Your task to perform on an android device: Search for bose soundlink mini on newegg.com, select the first entry, add it to the cart, then select checkout. Image 0: 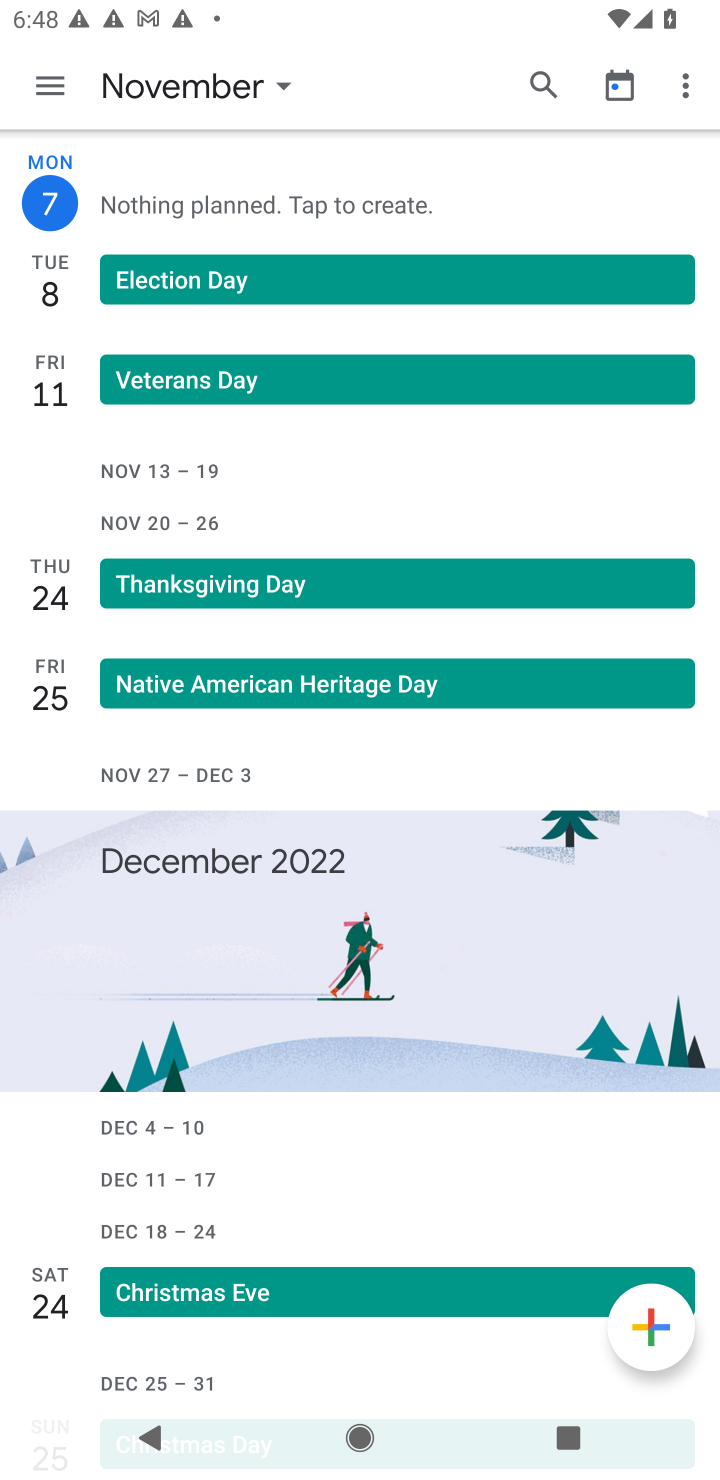
Step 0: press home button
Your task to perform on an android device: Search for bose soundlink mini on newegg.com, select the first entry, add it to the cart, then select checkout. Image 1: 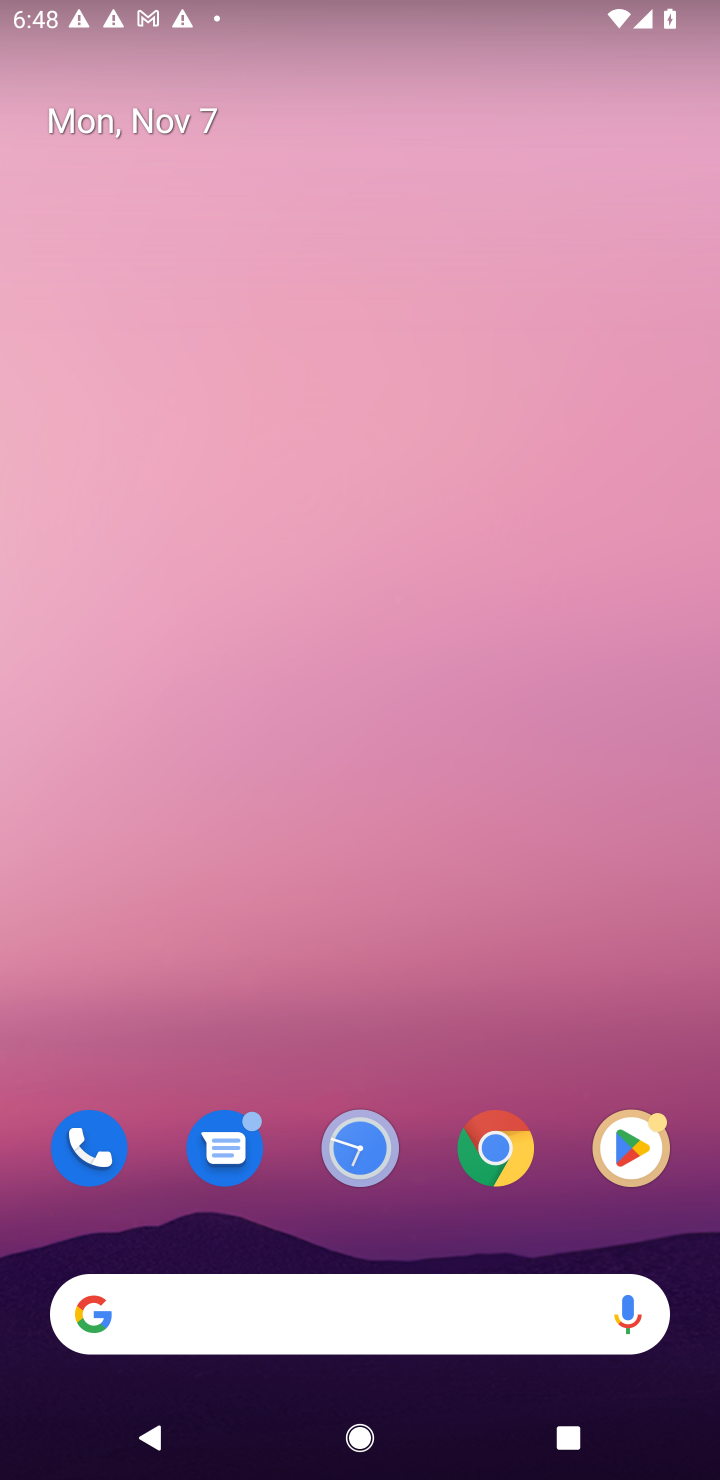
Step 1: click (476, 1165)
Your task to perform on an android device: Search for bose soundlink mini on newegg.com, select the first entry, add it to the cart, then select checkout. Image 2: 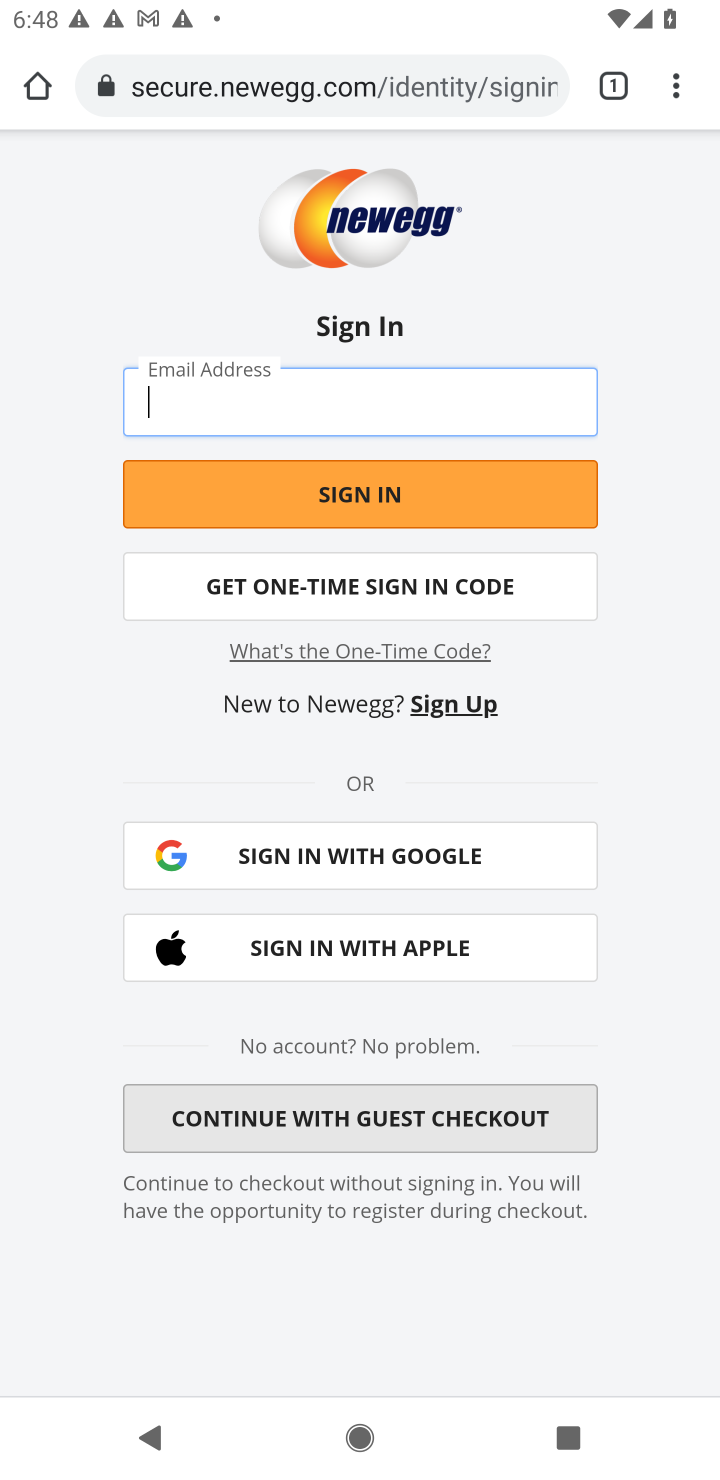
Step 2: press back button
Your task to perform on an android device: Search for bose soundlink mini on newegg.com, select the first entry, add it to the cart, then select checkout. Image 3: 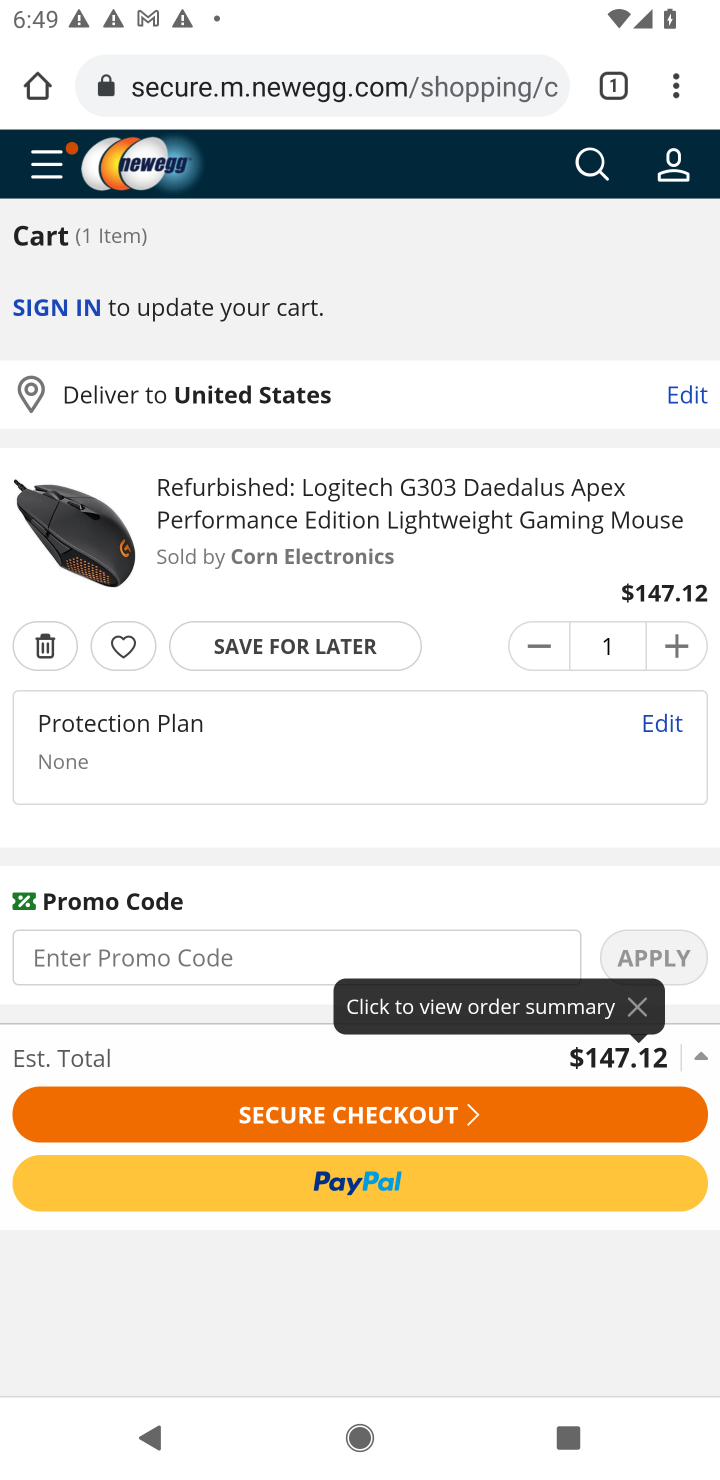
Step 3: click (585, 154)
Your task to perform on an android device: Search for bose soundlink mini on newegg.com, select the first entry, add it to the cart, then select checkout. Image 4: 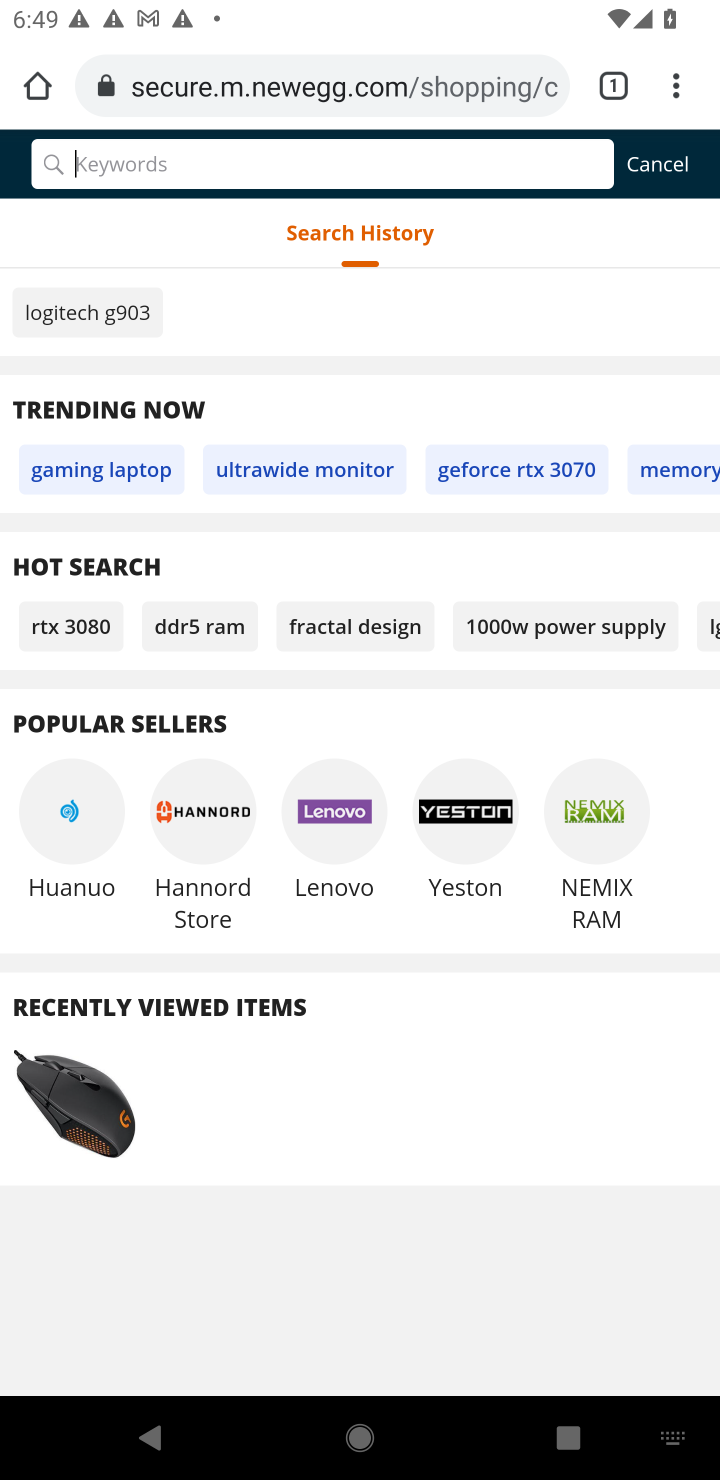
Step 4: type "bose soundlink mini "
Your task to perform on an android device: Search for bose soundlink mini on newegg.com, select the first entry, add it to the cart, then select checkout. Image 5: 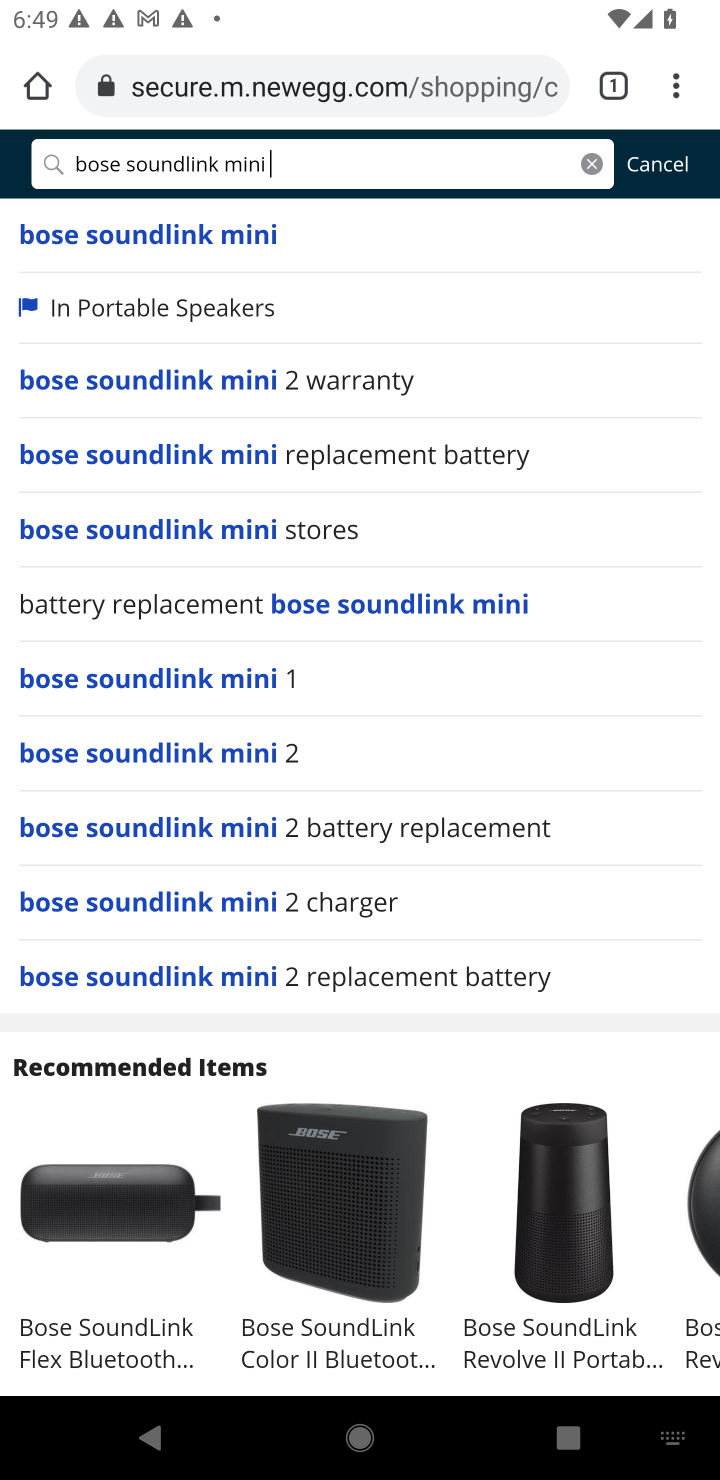
Step 5: click (238, 244)
Your task to perform on an android device: Search for bose soundlink mini on newegg.com, select the first entry, add it to the cart, then select checkout. Image 6: 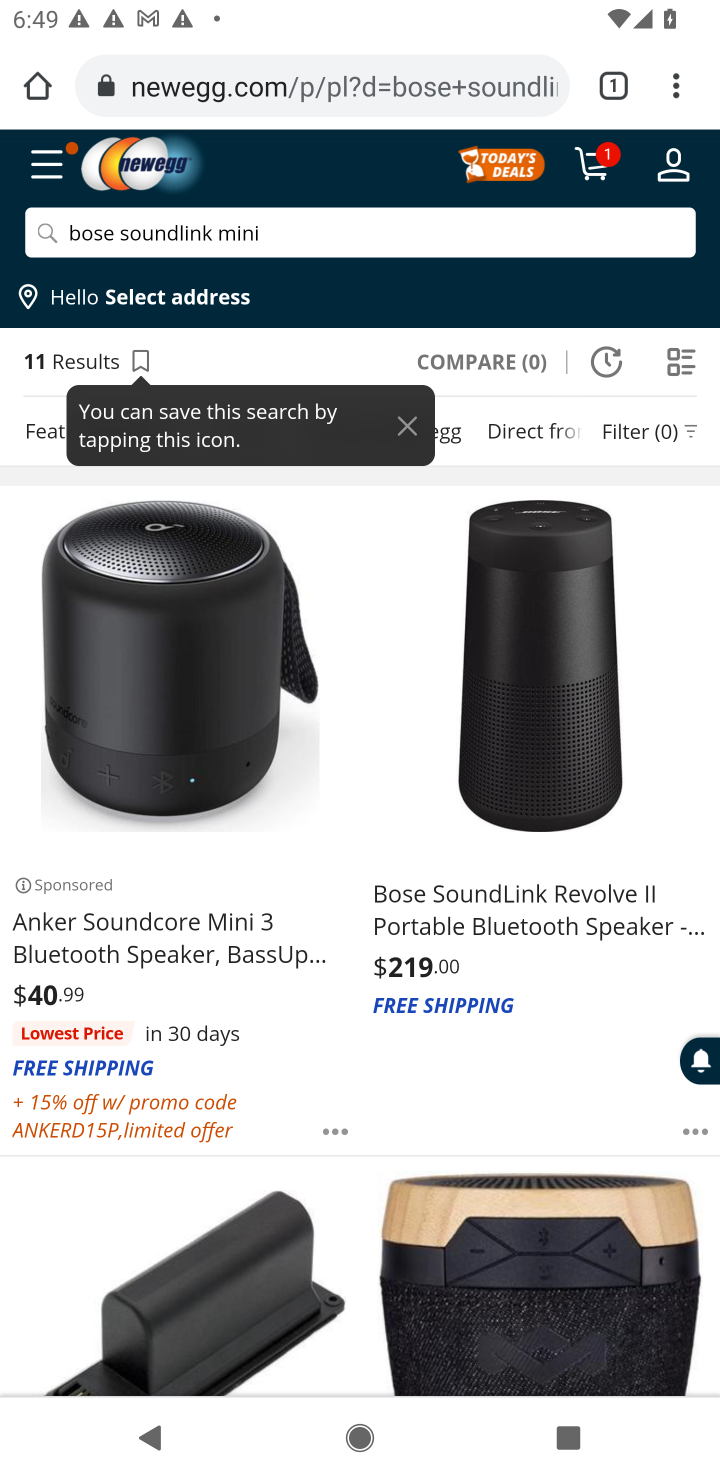
Step 6: click (230, 665)
Your task to perform on an android device: Search for bose soundlink mini on newegg.com, select the first entry, add it to the cart, then select checkout. Image 7: 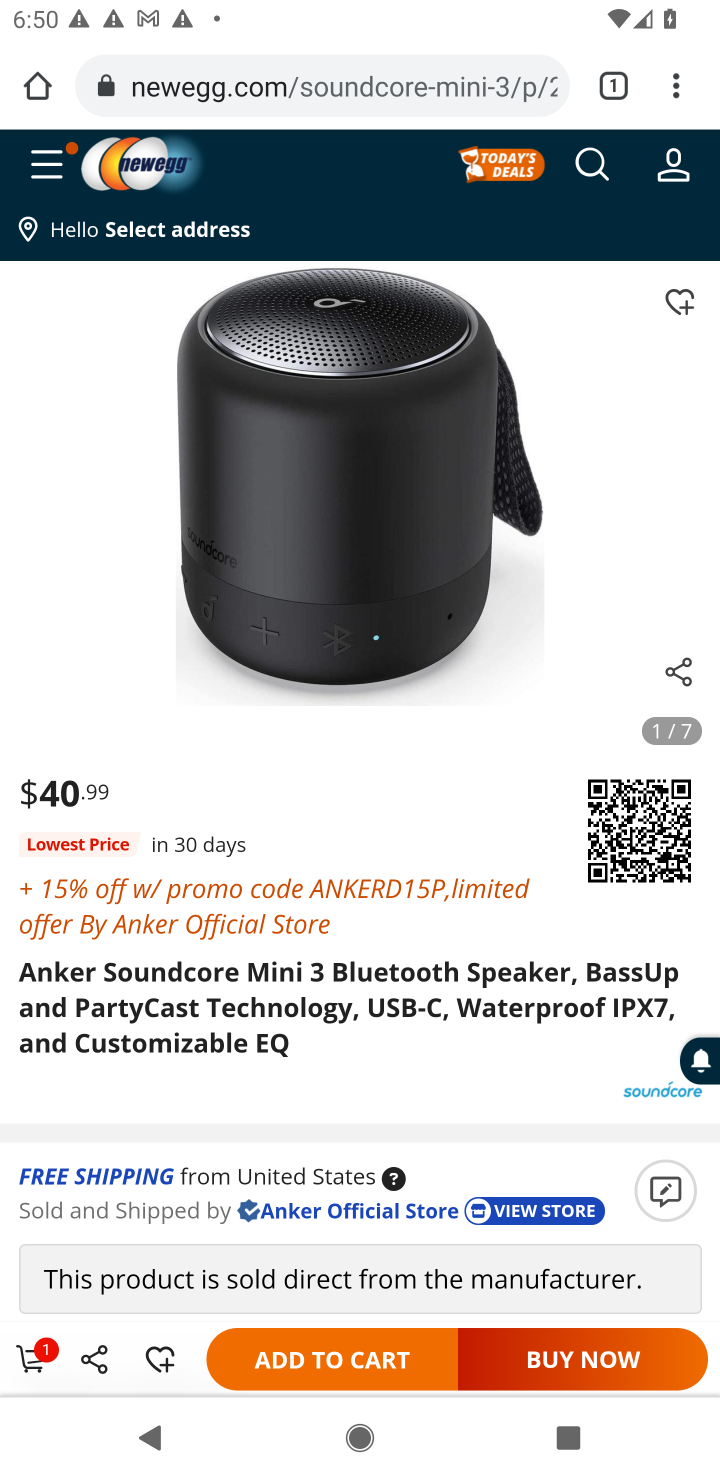
Step 7: click (322, 1361)
Your task to perform on an android device: Search for bose soundlink mini on newegg.com, select the first entry, add it to the cart, then select checkout. Image 8: 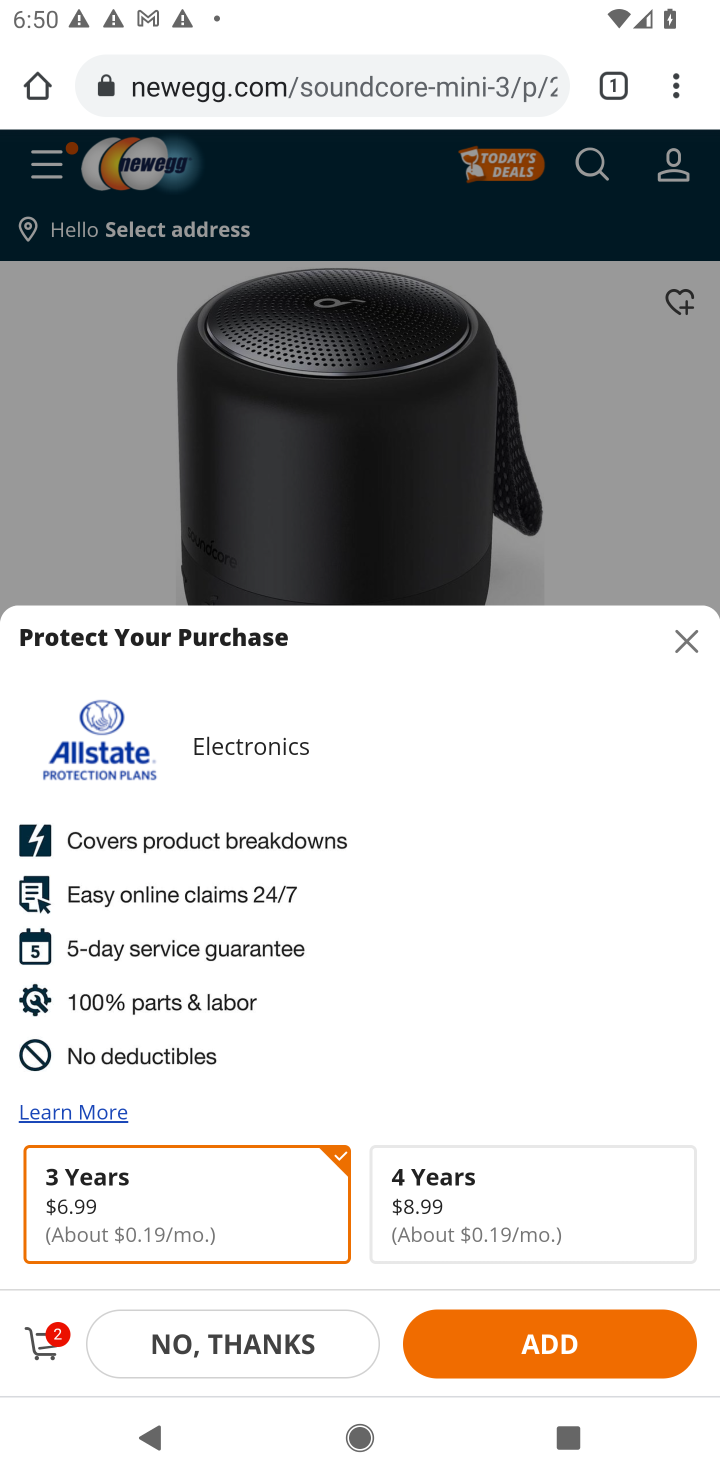
Step 8: click (685, 629)
Your task to perform on an android device: Search for bose soundlink mini on newegg.com, select the first entry, add it to the cart, then select checkout. Image 9: 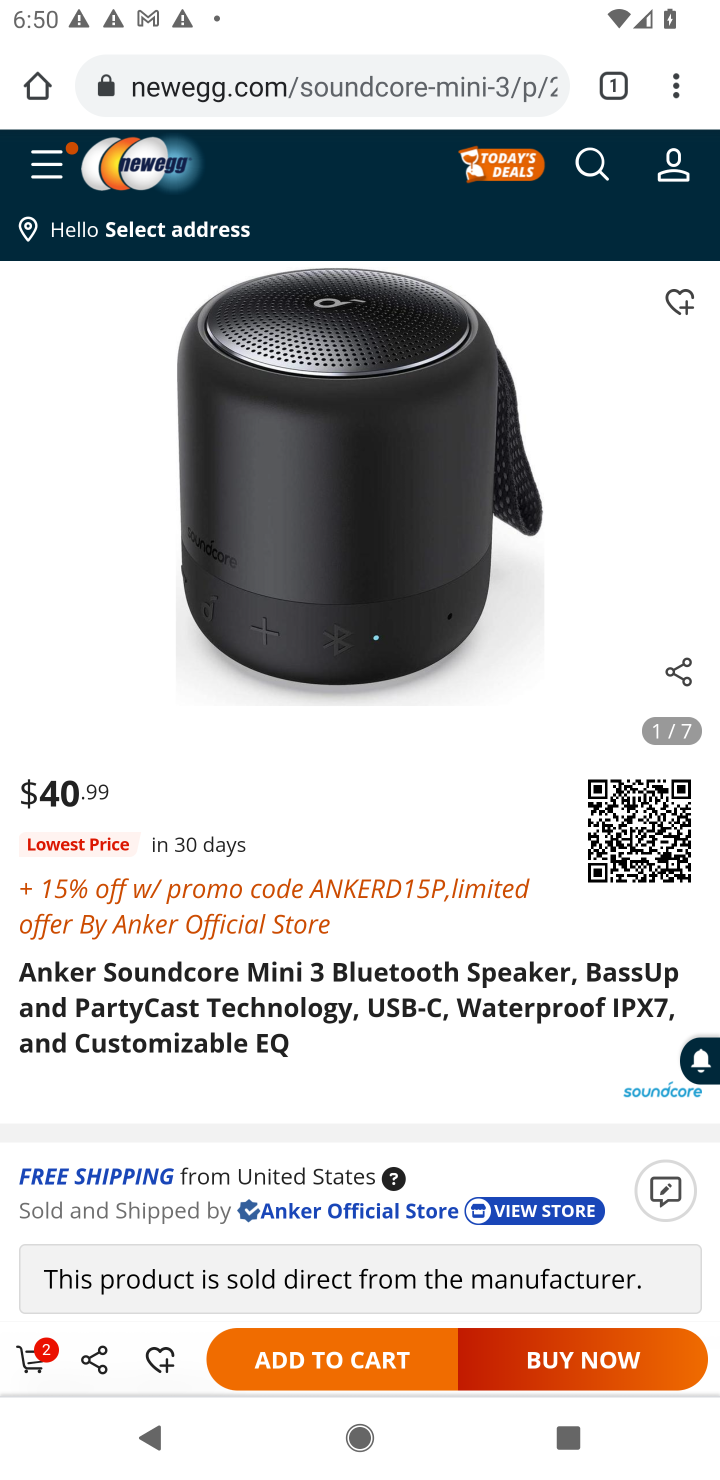
Step 9: click (679, 178)
Your task to perform on an android device: Search for bose soundlink mini on newegg.com, select the first entry, add it to the cart, then select checkout. Image 10: 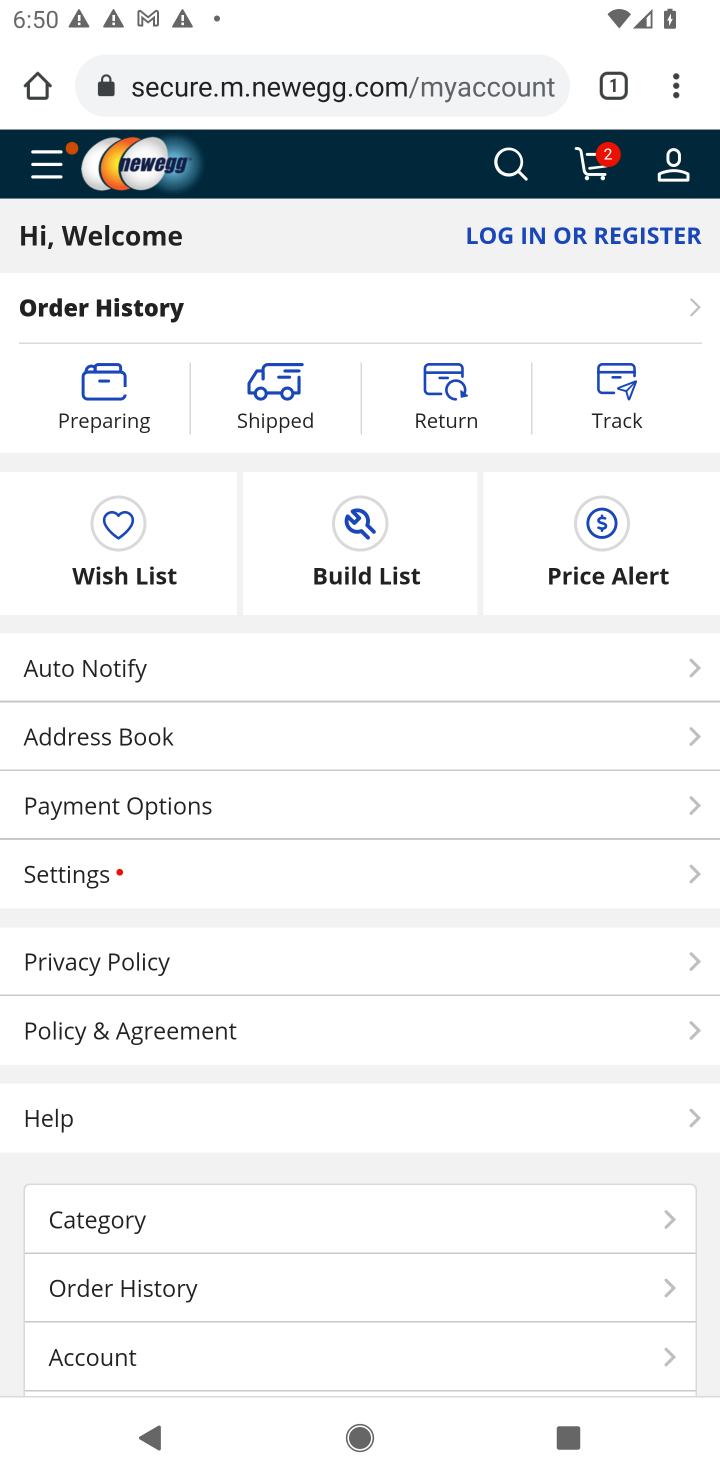
Step 10: click (593, 162)
Your task to perform on an android device: Search for bose soundlink mini on newegg.com, select the first entry, add it to the cart, then select checkout. Image 11: 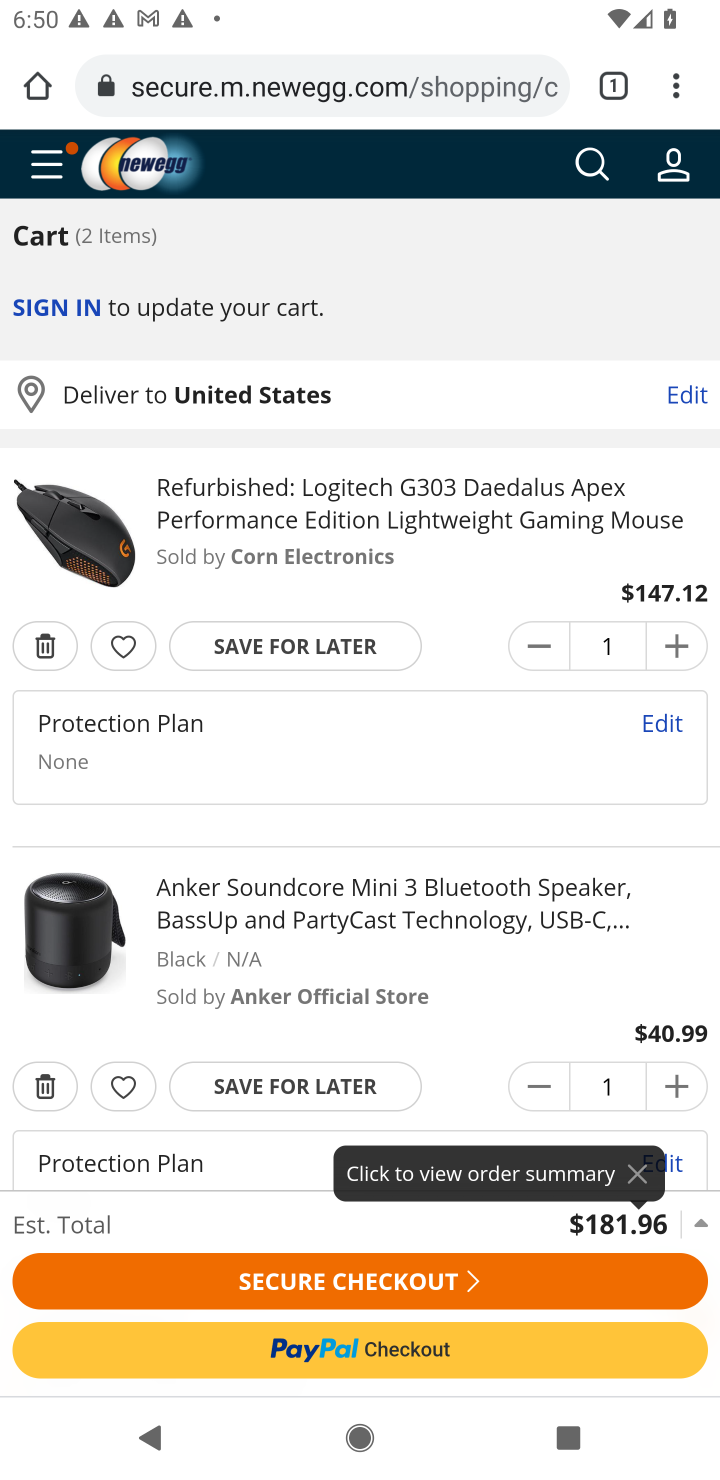
Step 11: click (344, 1279)
Your task to perform on an android device: Search for bose soundlink mini on newegg.com, select the first entry, add it to the cart, then select checkout. Image 12: 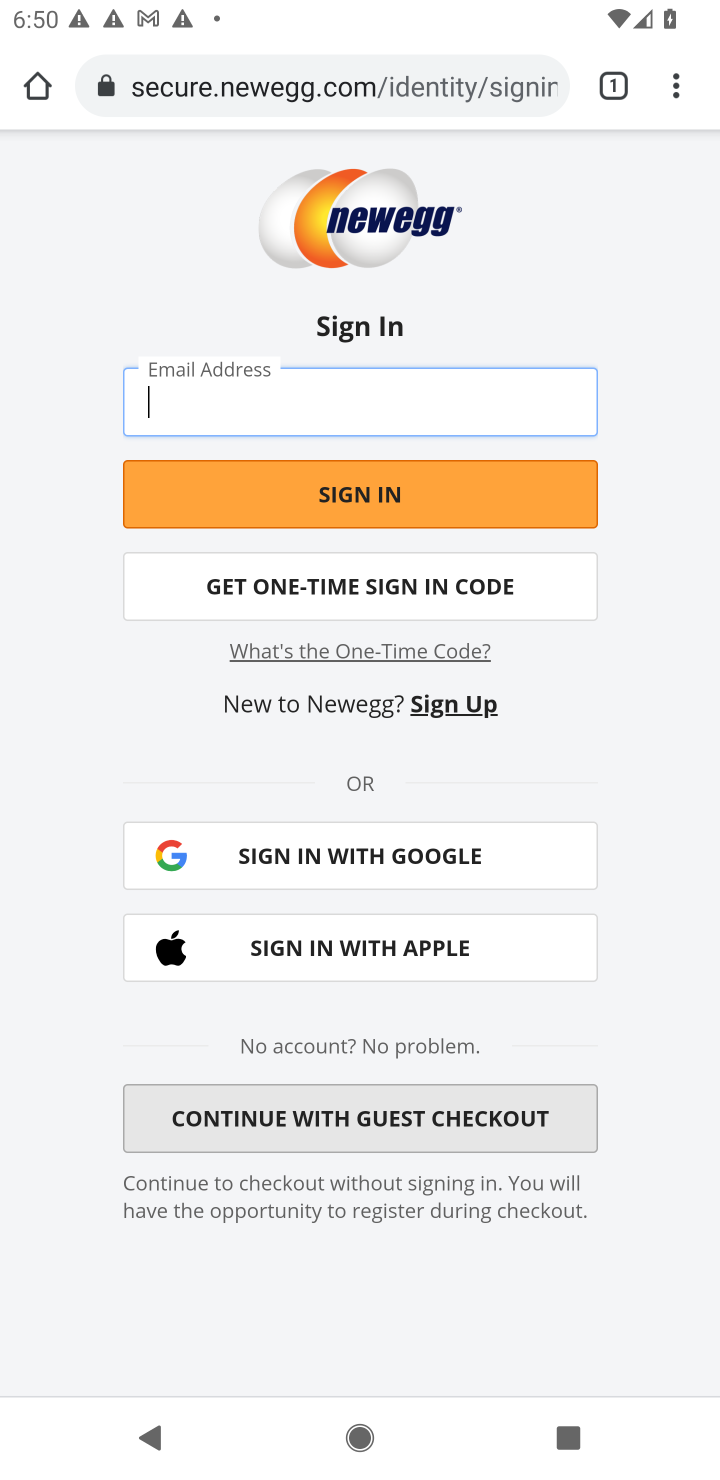
Step 12: task complete